Your task to perform on an android device: open app "Facebook Lite" Image 0: 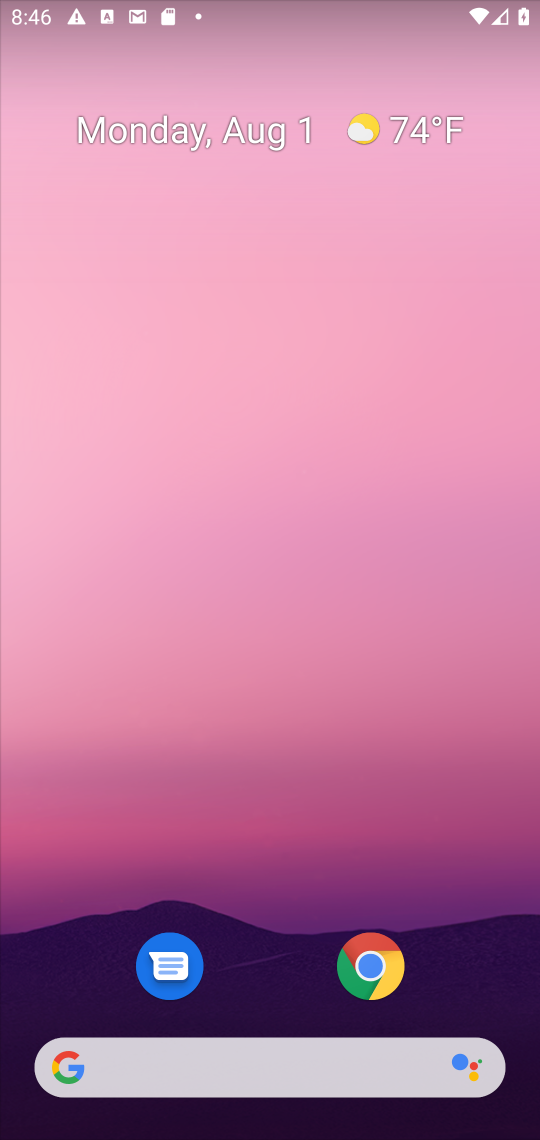
Step 0: drag from (513, 1108) to (387, 77)
Your task to perform on an android device: open app "Facebook Lite" Image 1: 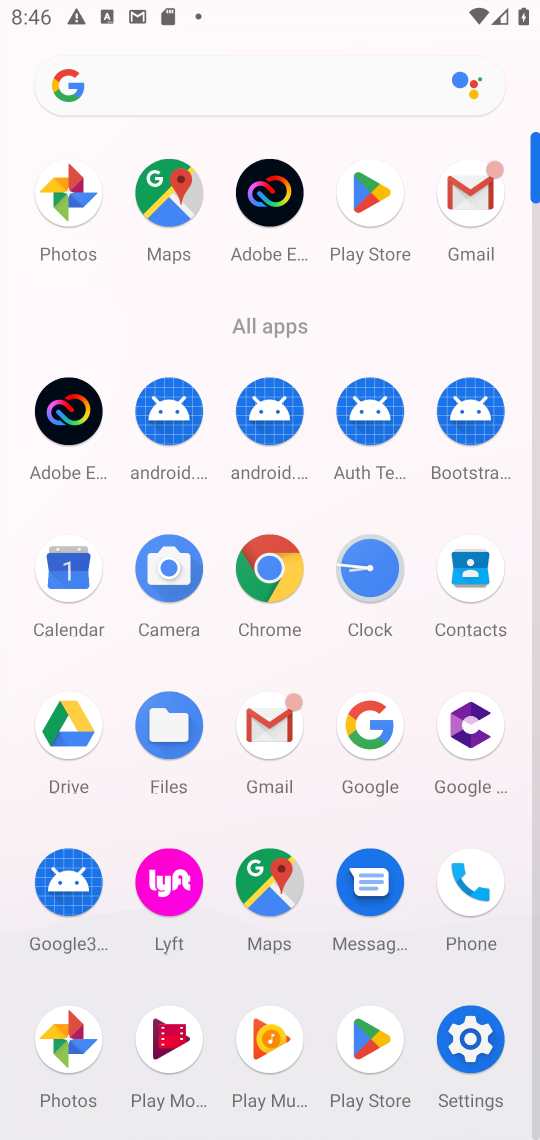
Step 1: drag from (327, 1051) to (302, 384)
Your task to perform on an android device: open app "Facebook Lite" Image 2: 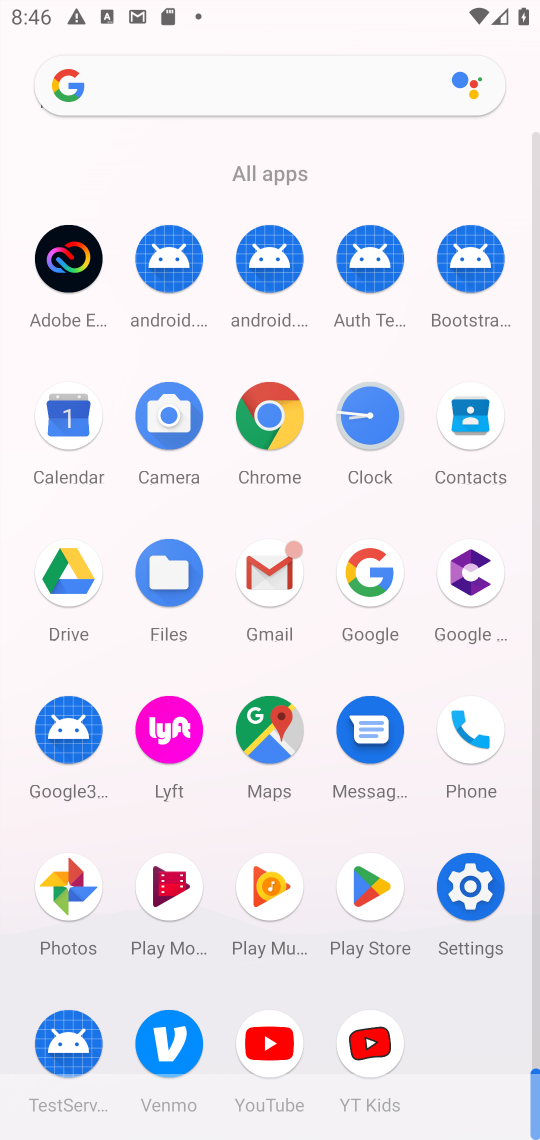
Step 2: click (366, 882)
Your task to perform on an android device: open app "Facebook Lite" Image 3: 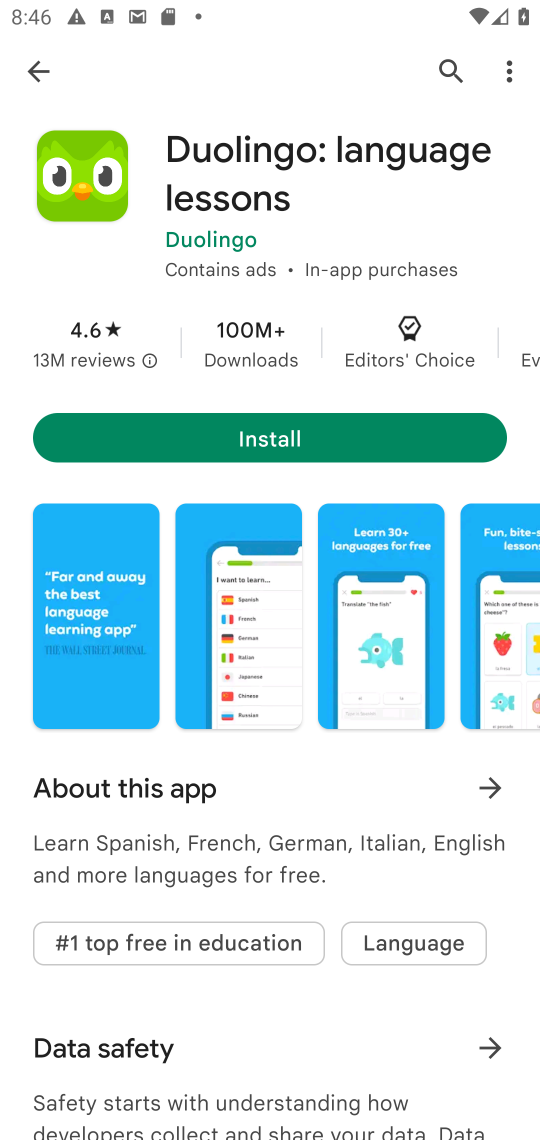
Step 3: click (451, 68)
Your task to perform on an android device: open app "Facebook Lite" Image 4: 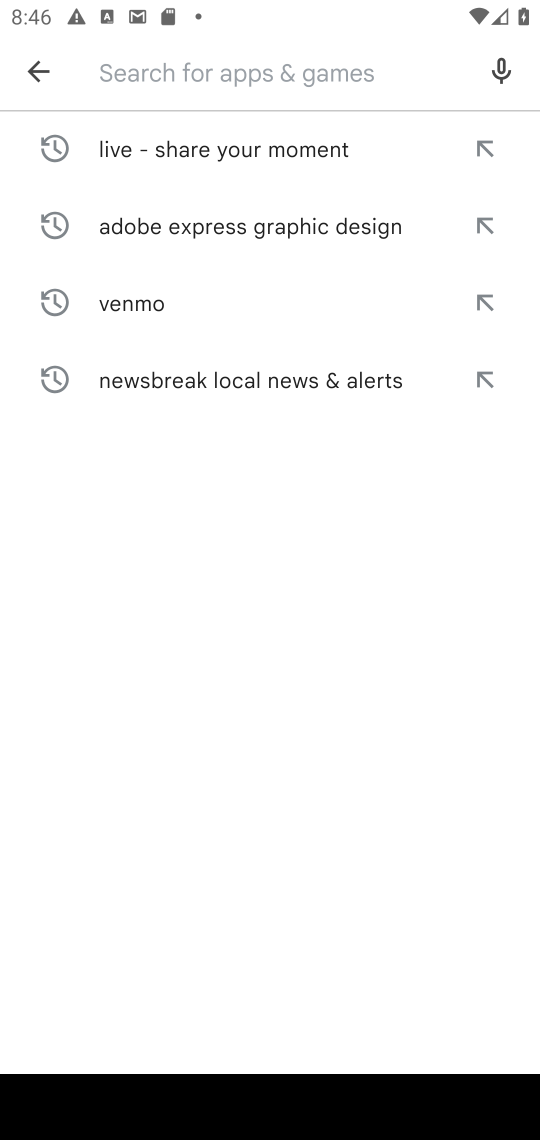
Step 4: type "Facebook Lite"
Your task to perform on an android device: open app "Facebook Lite" Image 5: 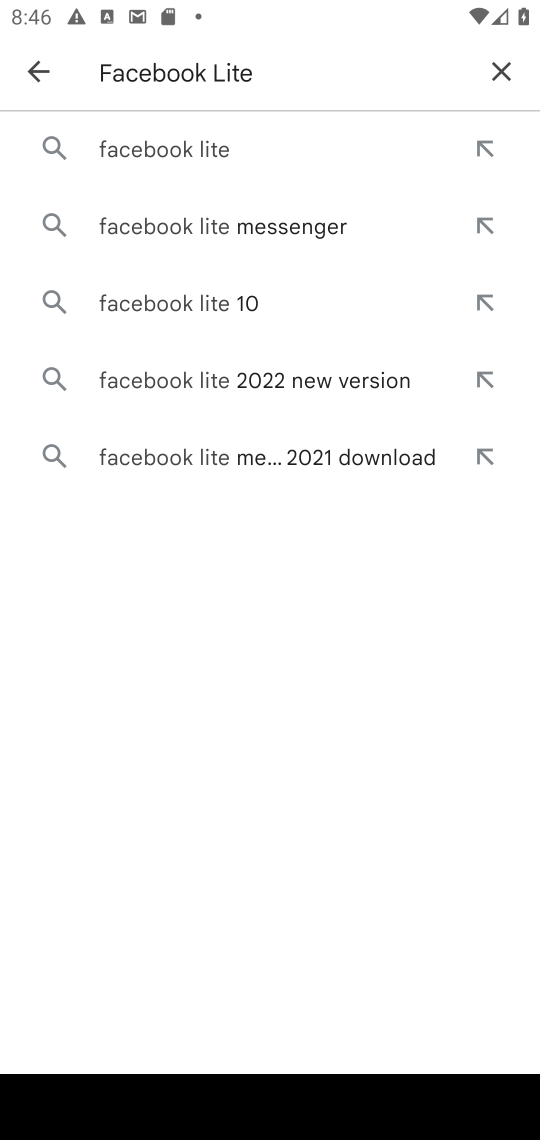
Step 5: click (189, 139)
Your task to perform on an android device: open app "Facebook Lite" Image 6: 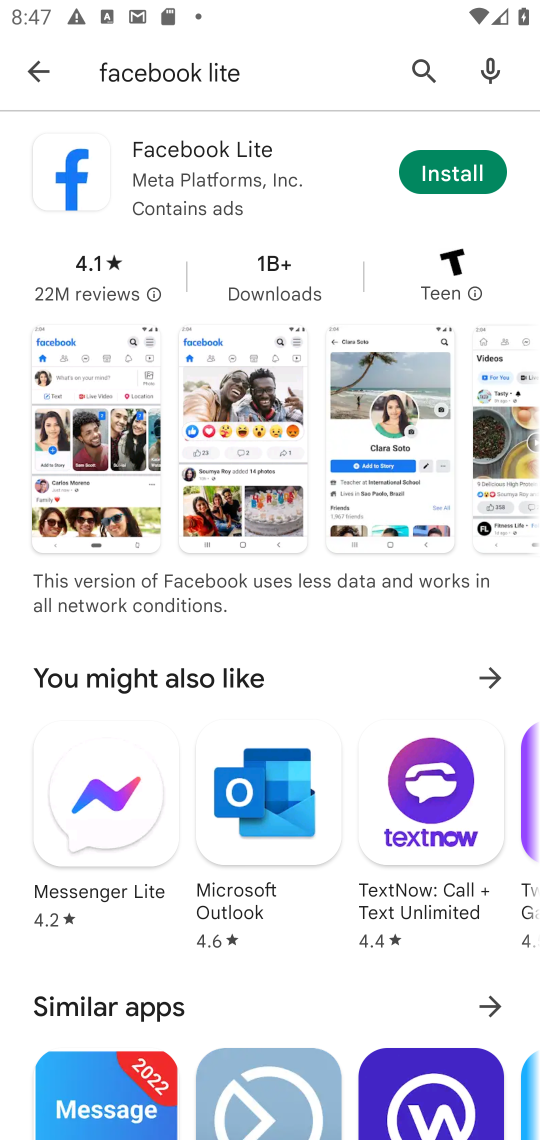
Step 6: task complete